Your task to perform on an android device: toggle wifi Image 0: 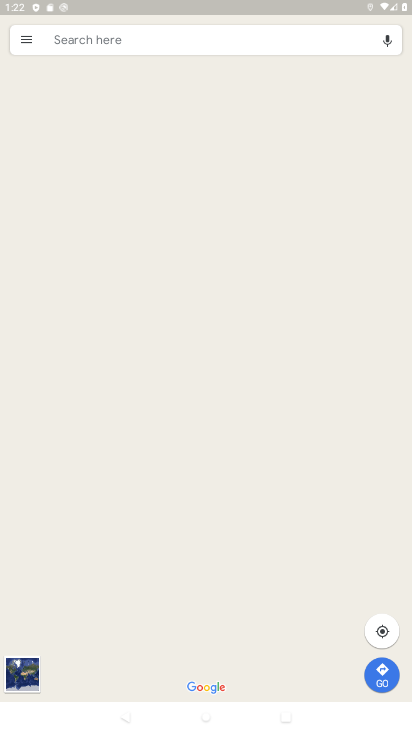
Step 0: press home button
Your task to perform on an android device: toggle wifi Image 1: 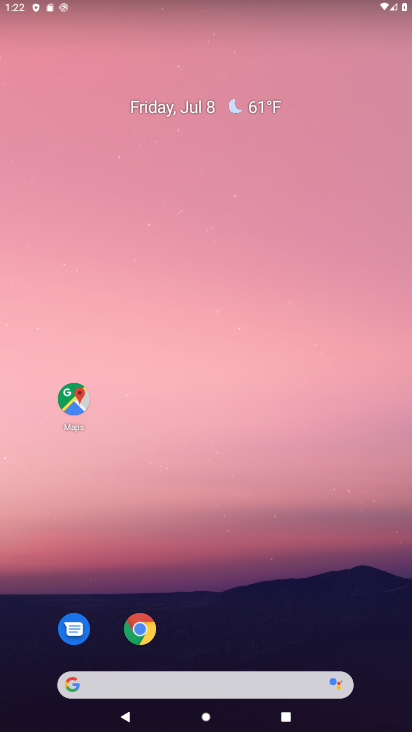
Step 1: drag from (111, 5) to (96, 549)
Your task to perform on an android device: toggle wifi Image 2: 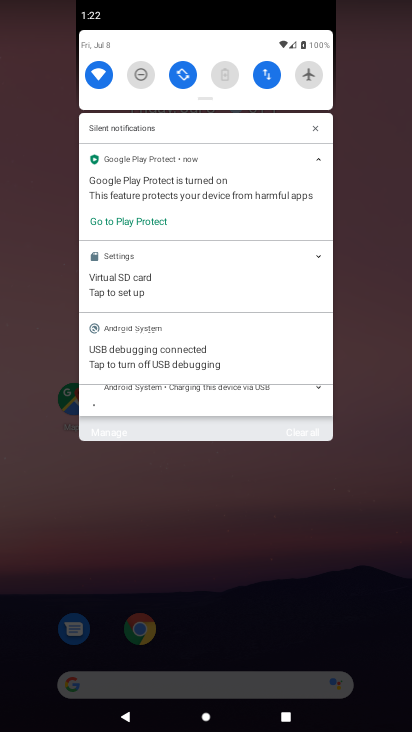
Step 2: click (111, 81)
Your task to perform on an android device: toggle wifi Image 3: 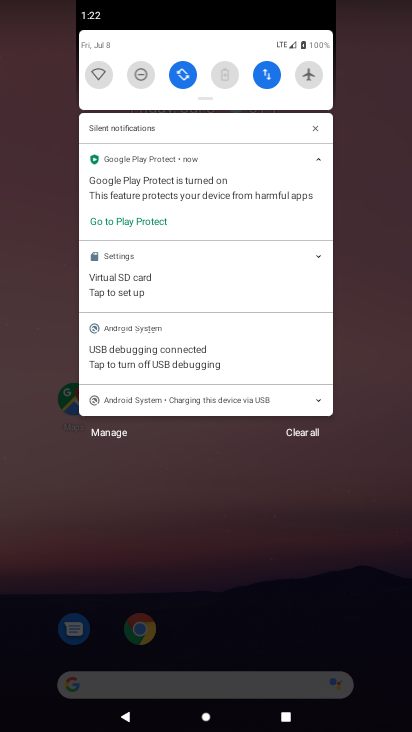
Step 3: task complete